Your task to perform on an android device: Go to Google Image 0: 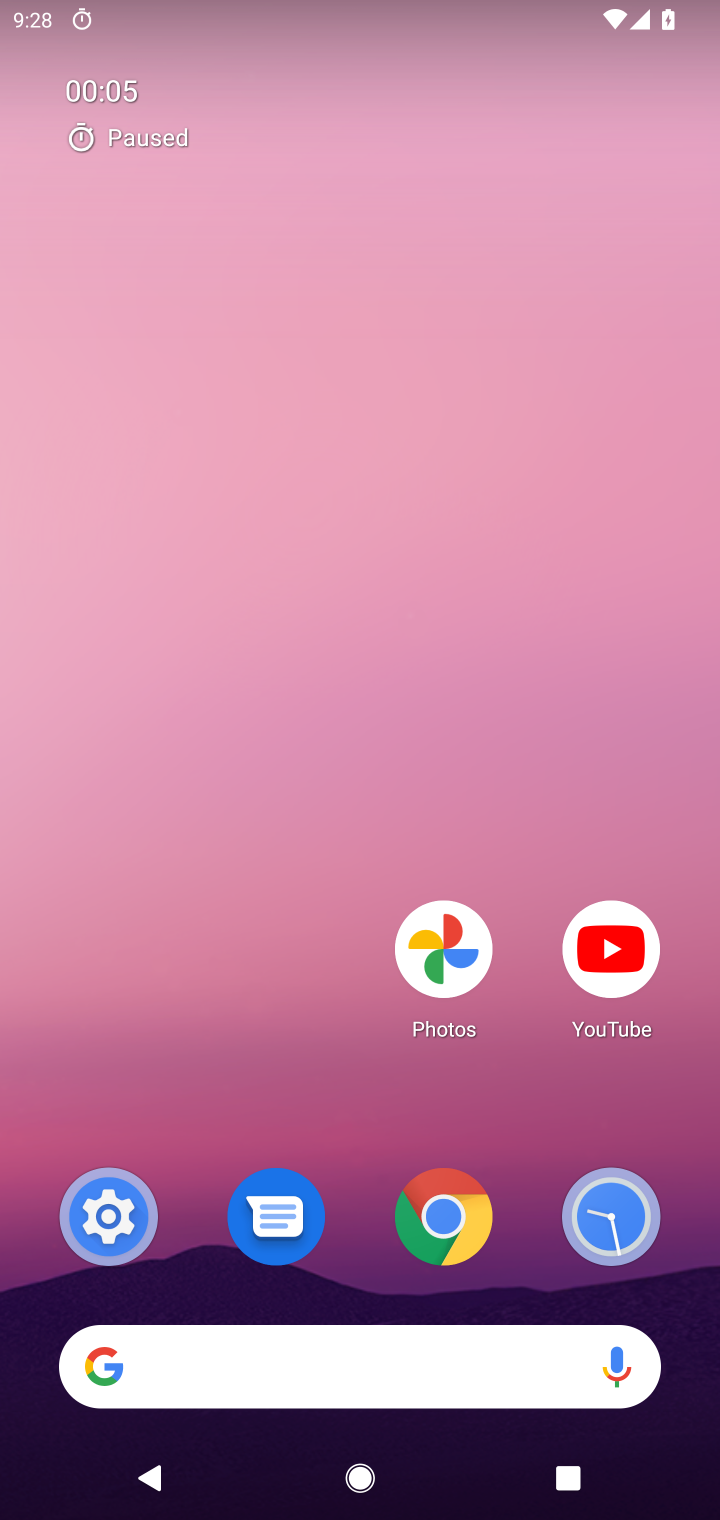
Step 0: drag from (368, 1306) to (294, 128)
Your task to perform on an android device: Go to Google Image 1: 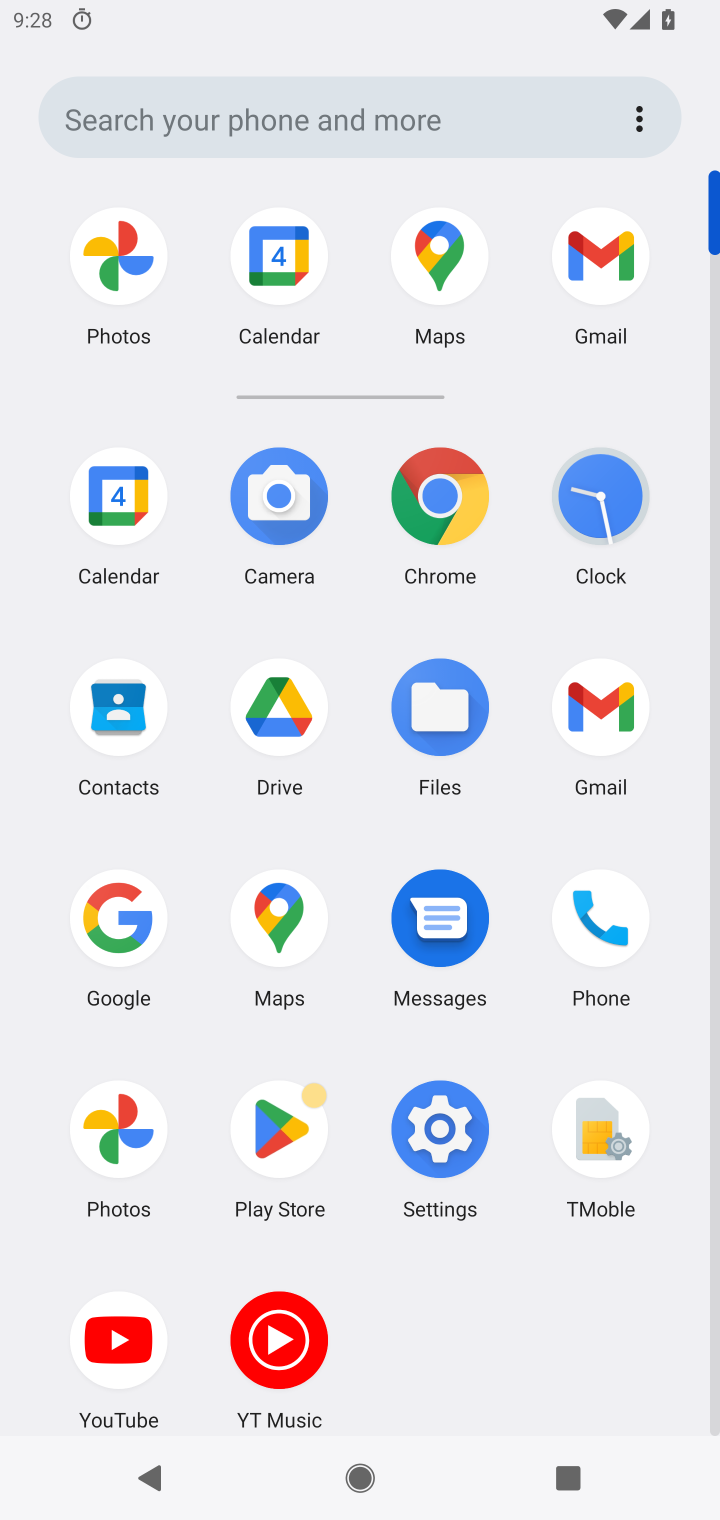
Step 1: click (120, 912)
Your task to perform on an android device: Go to Google Image 2: 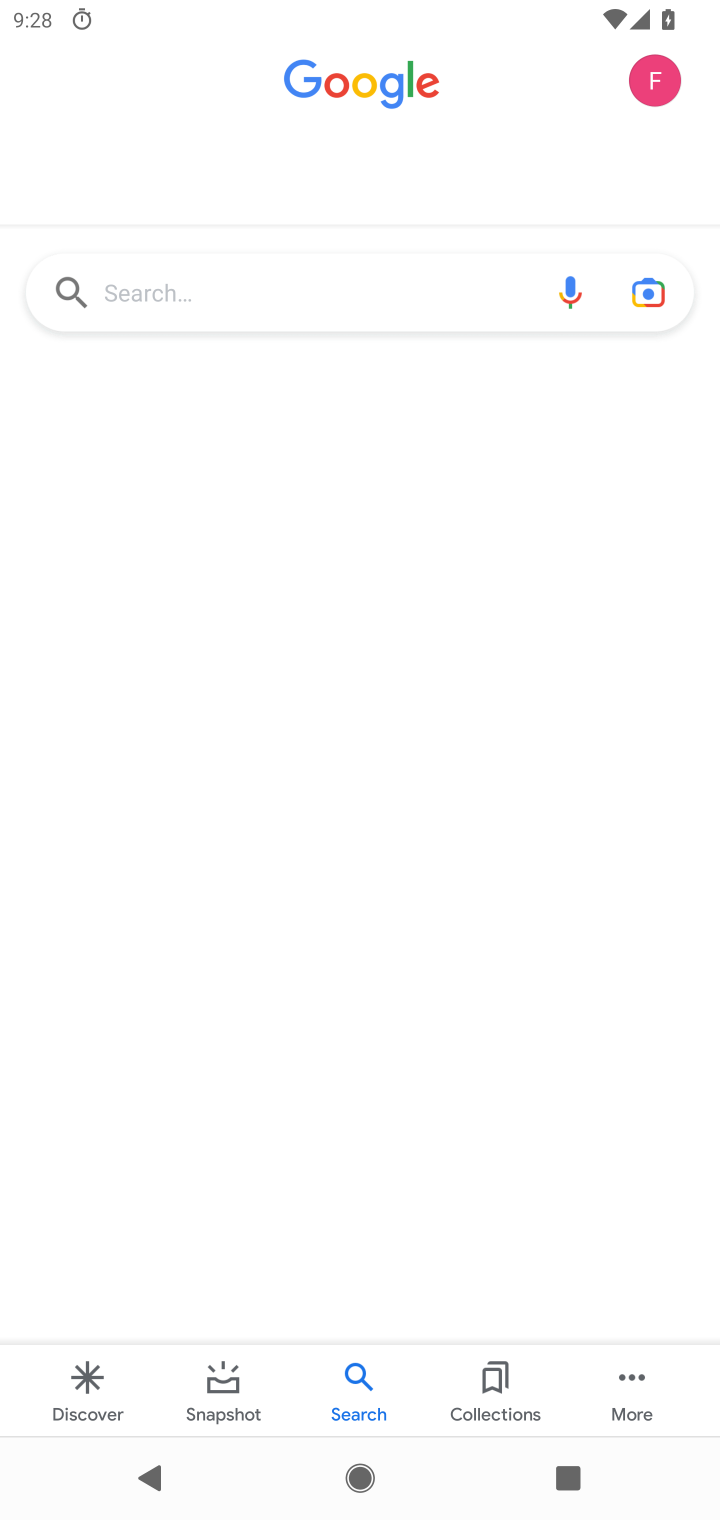
Step 2: task complete